Your task to perform on an android device: What's the time in San Francisco? Image 0: 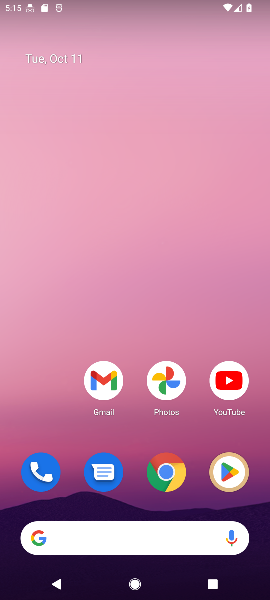
Step 0: click (164, 488)
Your task to perform on an android device: What's the time in San Francisco? Image 1: 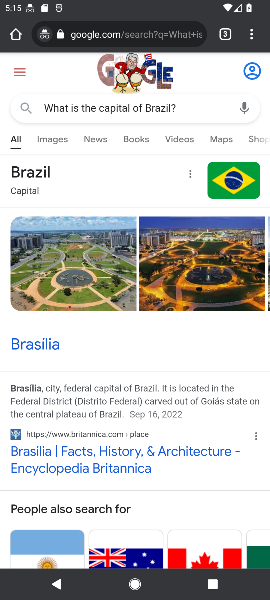
Step 1: click (177, 112)
Your task to perform on an android device: What's the time in San Francisco? Image 2: 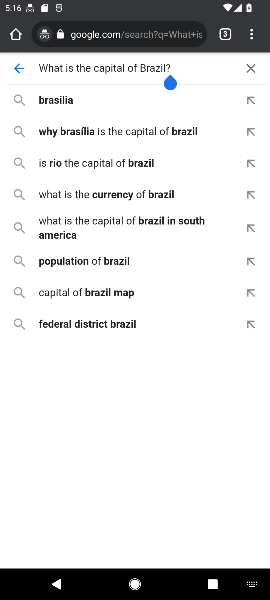
Step 2: click (176, 46)
Your task to perform on an android device: What's the time in San Francisco? Image 3: 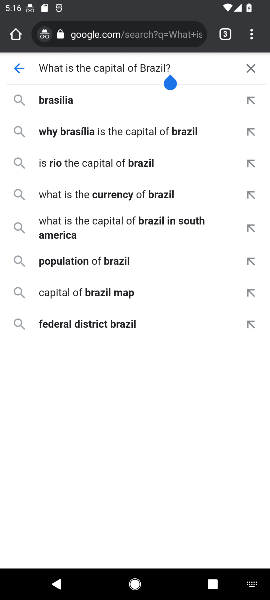
Step 3: click (176, 46)
Your task to perform on an android device: What's the time in San Francisco? Image 4: 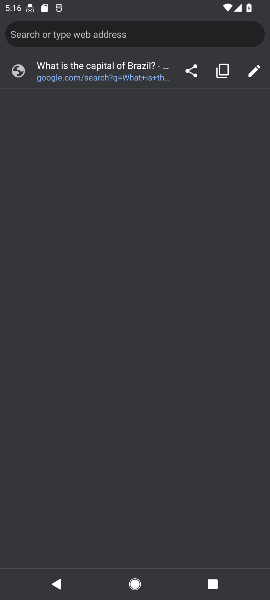
Step 4: type "What's the time in San Francisco?"
Your task to perform on an android device: What's the time in San Francisco? Image 5: 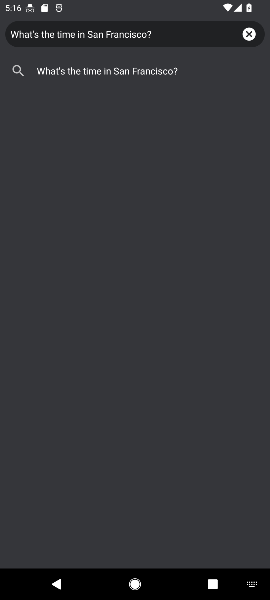
Step 5: click (175, 75)
Your task to perform on an android device: What's the time in San Francisco? Image 6: 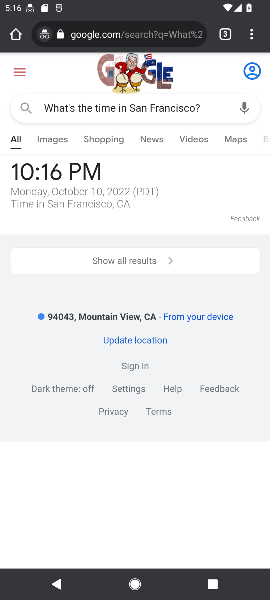
Step 6: task complete